Your task to perform on an android device: change your default location settings in chrome Image 0: 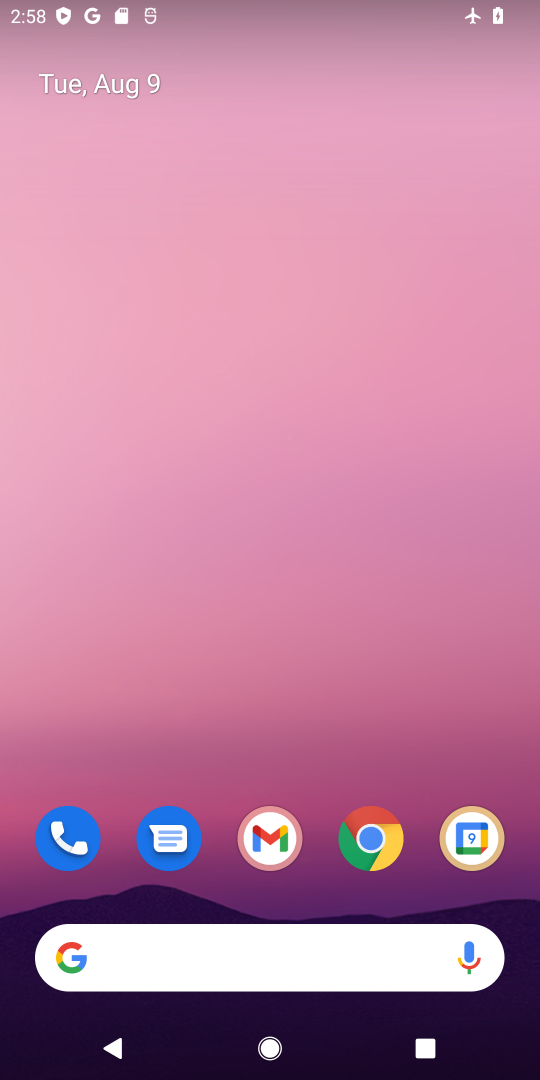
Step 0: drag from (347, 751) to (372, 159)
Your task to perform on an android device: change your default location settings in chrome Image 1: 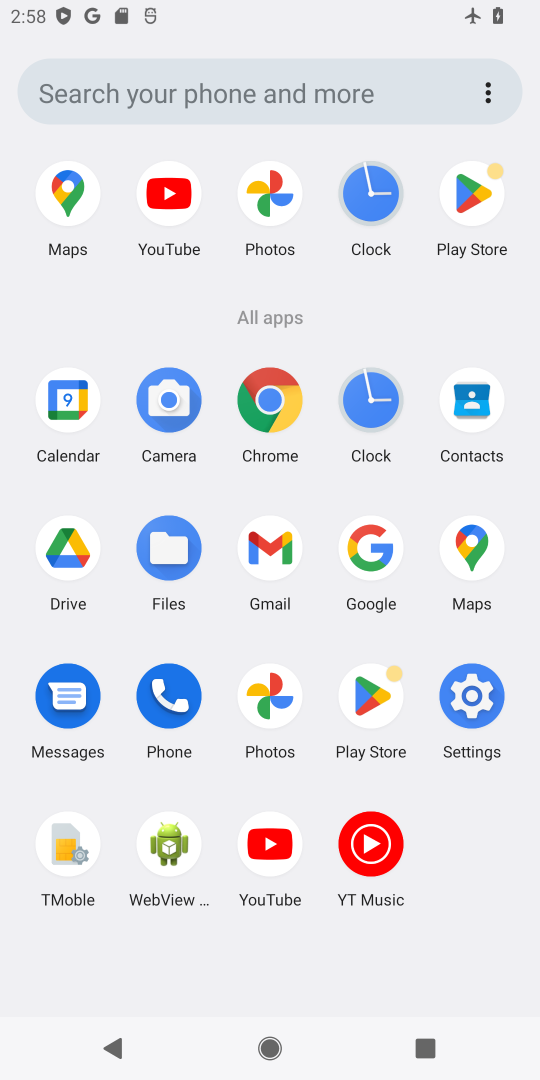
Step 1: click (264, 399)
Your task to perform on an android device: change your default location settings in chrome Image 2: 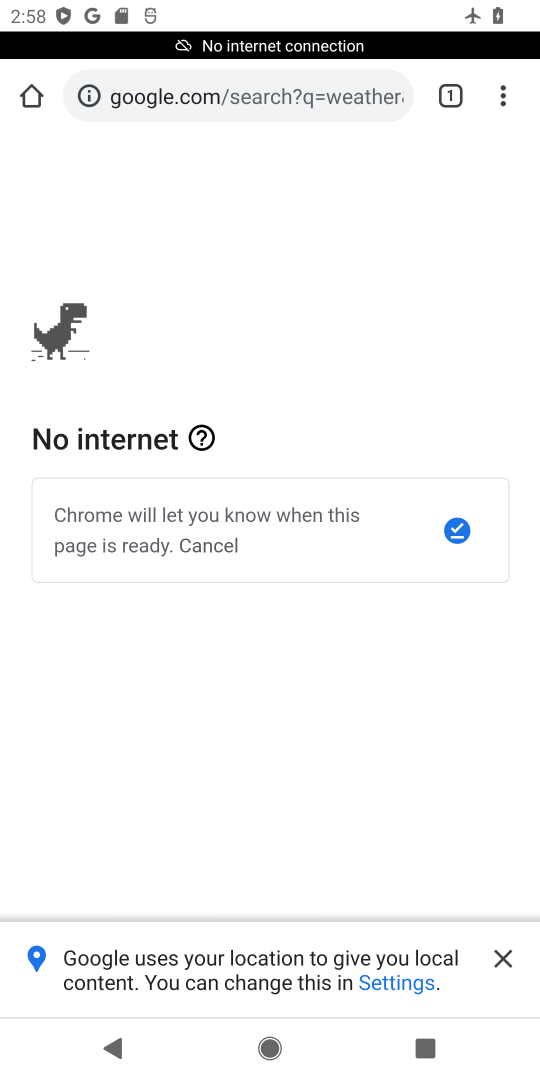
Step 2: drag from (517, 91) to (272, 886)
Your task to perform on an android device: change your default location settings in chrome Image 3: 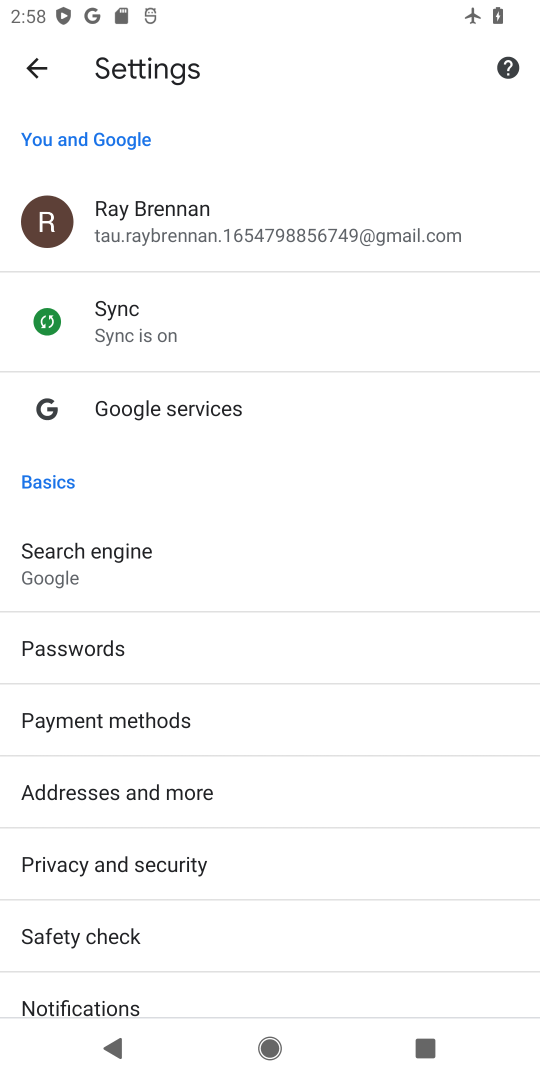
Step 3: click (116, 579)
Your task to perform on an android device: change your default location settings in chrome Image 4: 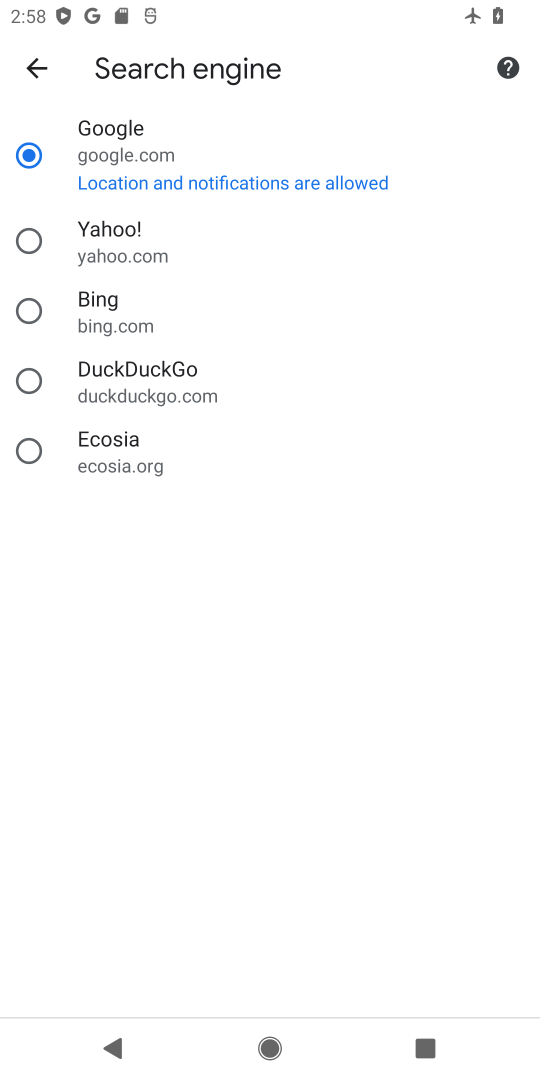
Step 4: click (25, 69)
Your task to perform on an android device: change your default location settings in chrome Image 5: 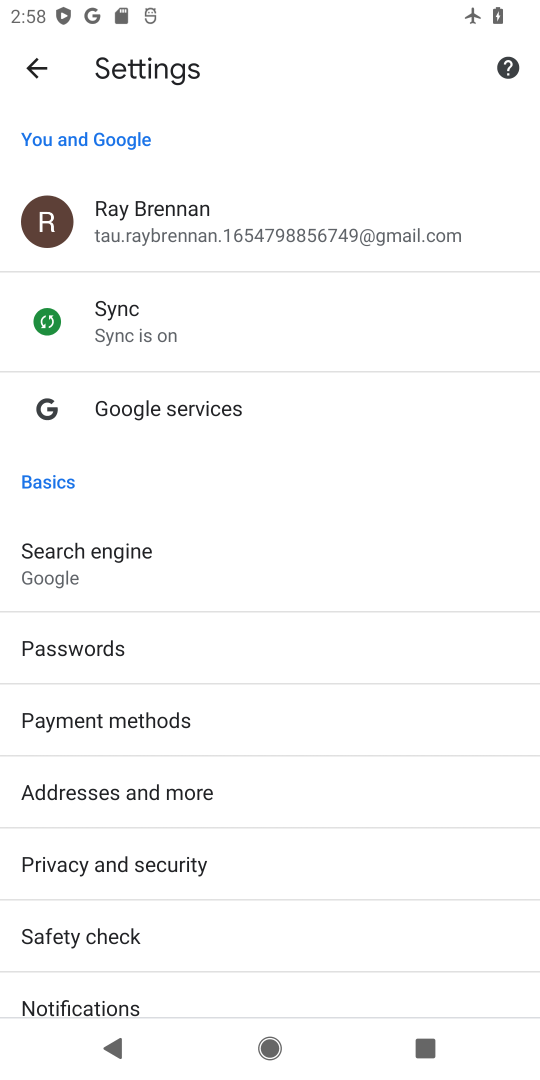
Step 5: drag from (217, 952) to (253, 387)
Your task to perform on an android device: change your default location settings in chrome Image 6: 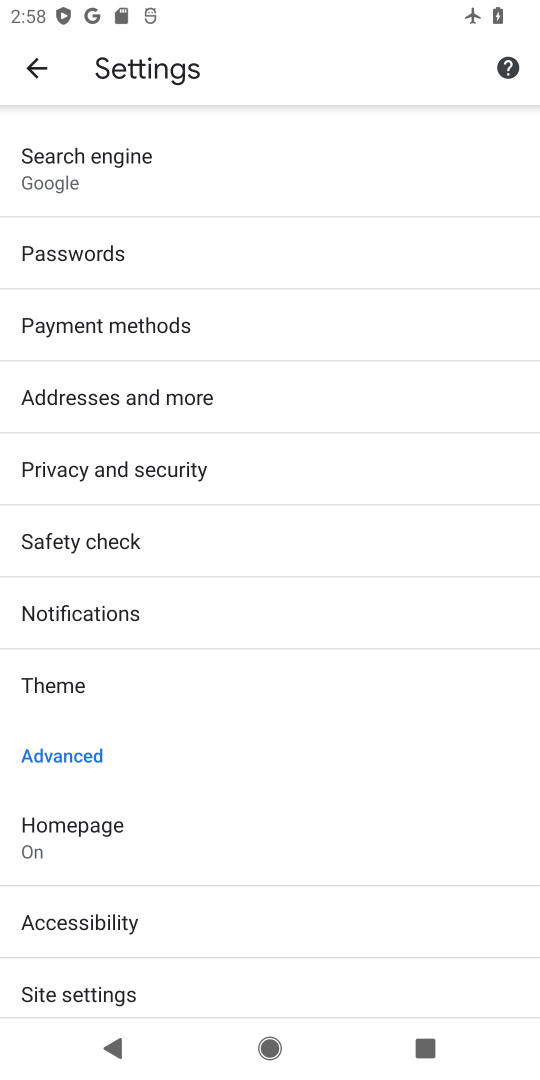
Step 6: click (81, 985)
Your task to perform on an android device: change your default location settings in chrome Image 7: 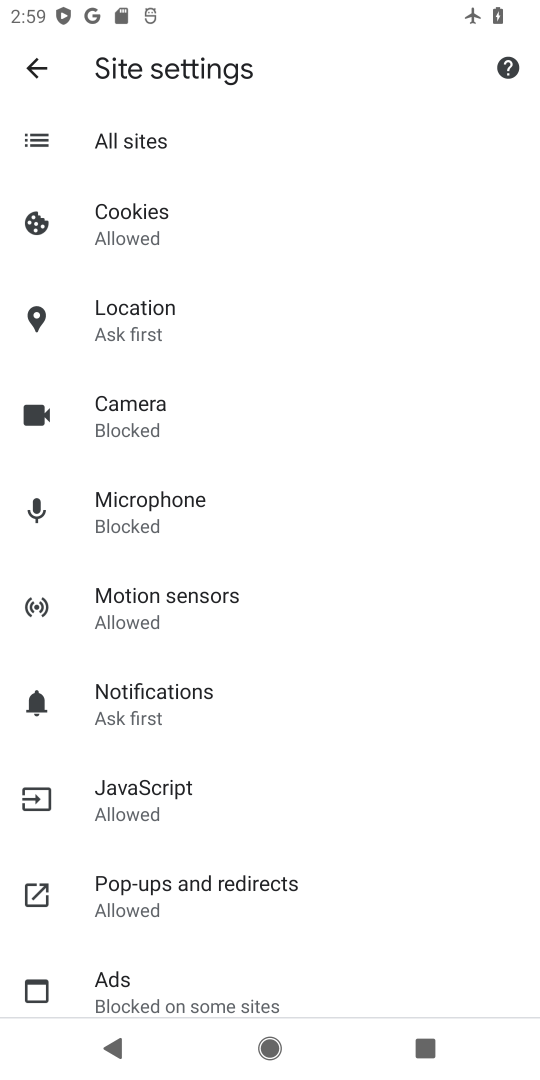
Step 7: click (156, 326)
Your task to perform on an android device: change your default location settings in chrome Image 8: 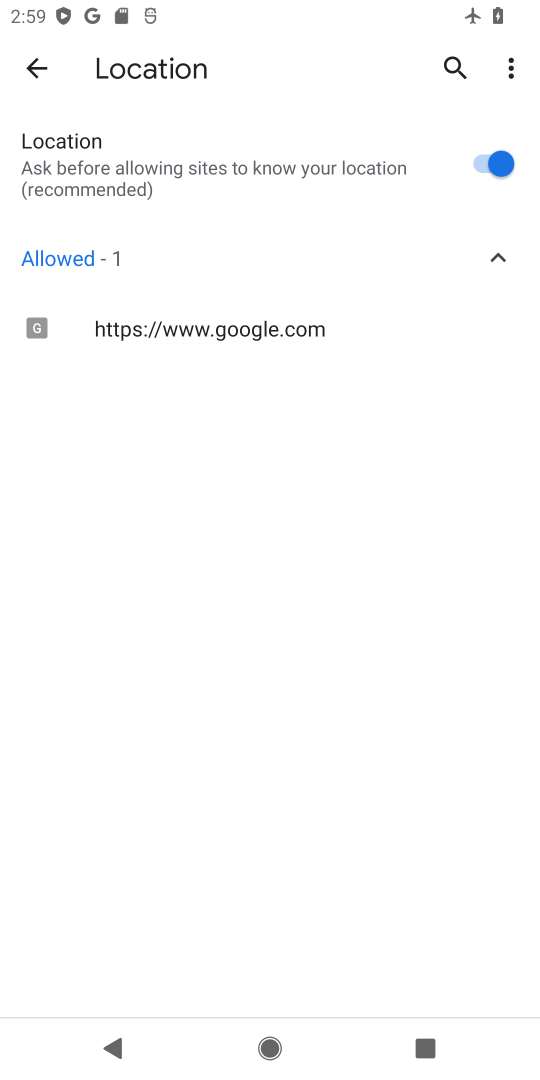
Step 8: click (458, 165)
Your task to perform on an android device: change your default location settings in chrome Image 9: 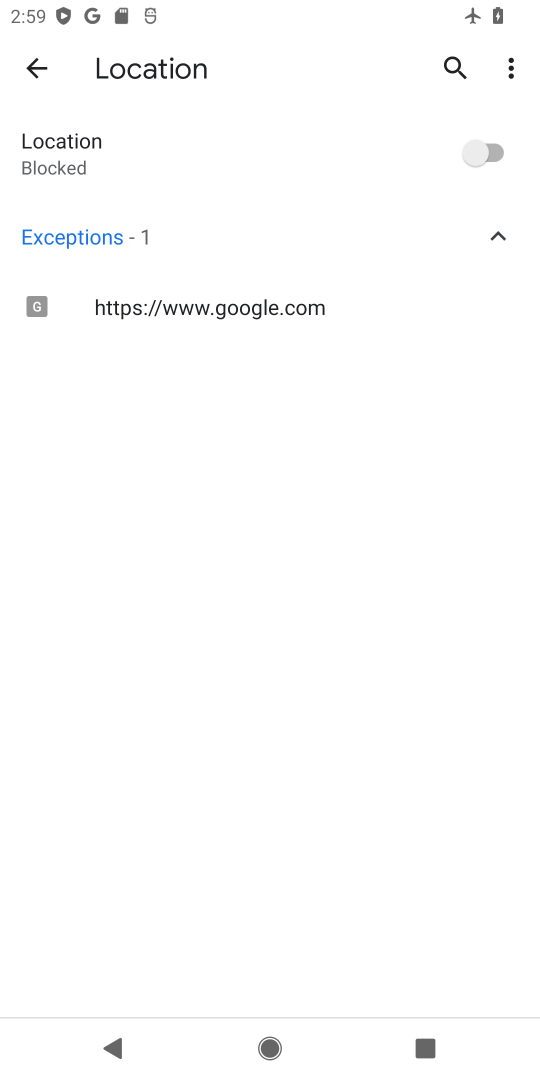
Step 9: task complete